Your task to perform on an android device: turn on notifications settings in the gmail app Image 0: 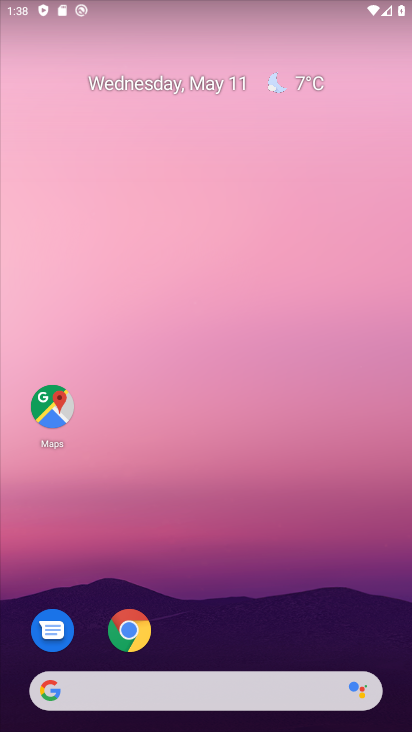
Step 0: drag from (366, 633) to (334, 25)
Your task to perform on an android device: turn on notifications settings in the gmail app Image 1: 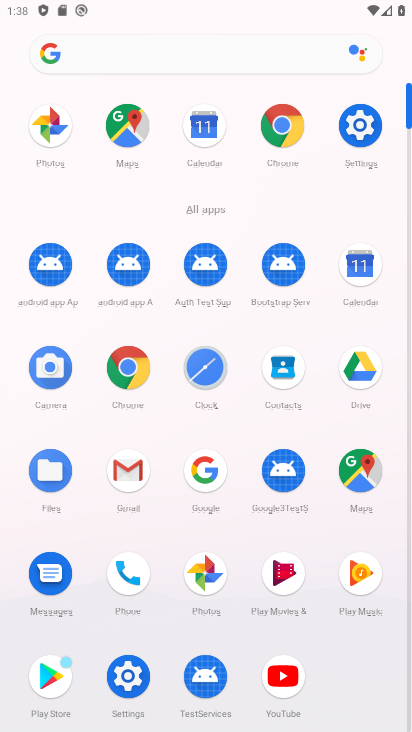
Step 1: click (132, 472)
Your task to perform on an android device: turn on notifications settings in the gmail app Image 2: 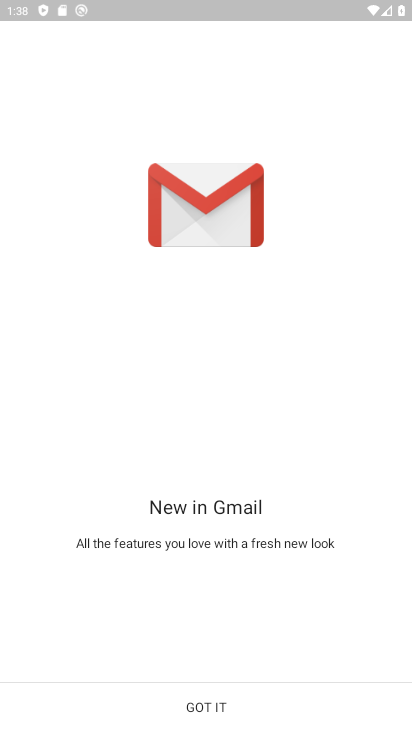
Step 2: click (200, 693)
Your task to perform on an android device: turn on notifications settings in the gmail app Image 3: 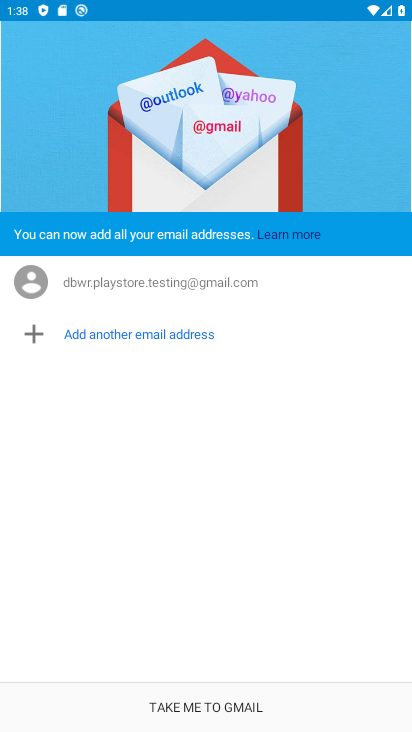
Step 3: click (200, 693)
Your task to perform on an android device: turn on notifications settings in the gmail app Image 4: 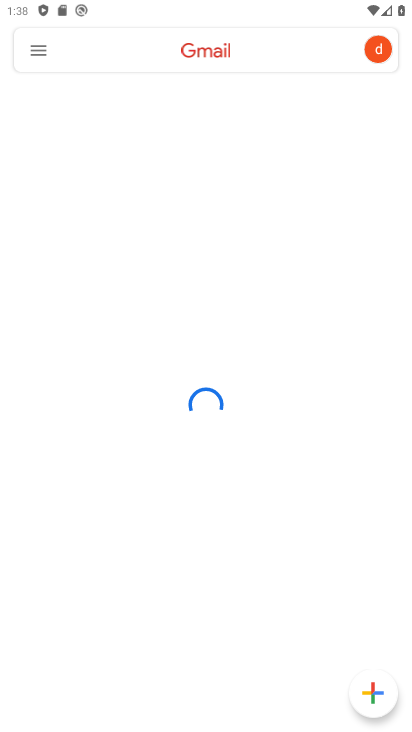
Step 4: click (29, 46)
Your task to perform on an android device: turn on notifications settings in the gmail app Image 5: 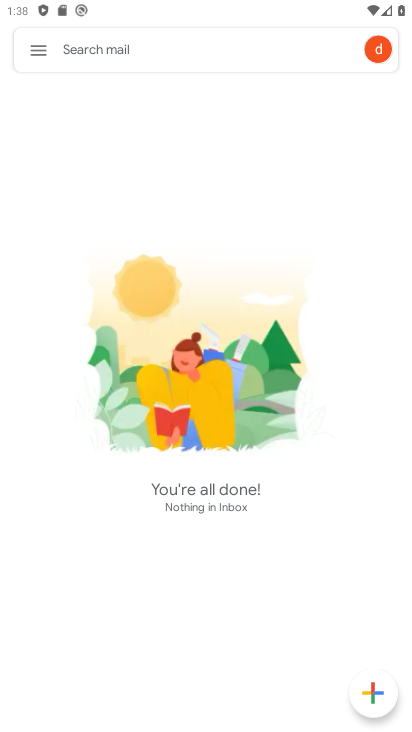
Step 5: click (44, 37)
Your task to perform on an android device: turn on notifications settings in the gmail app Image 6: 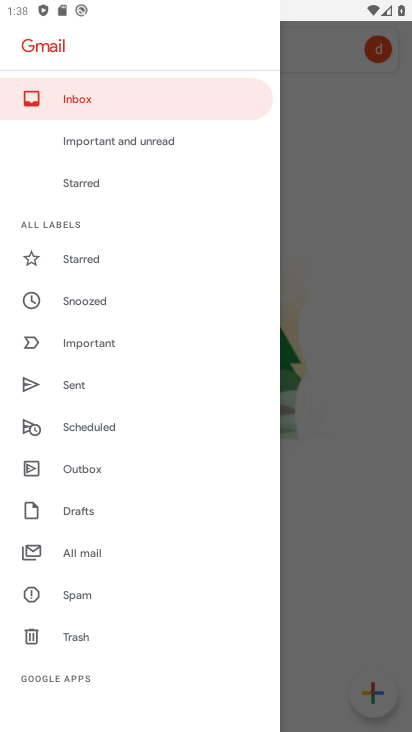
Step 6: drag from (103, 668) to (163, 141)
Your task to perform on an android device: turn on notifications settings in the gmail app Image 7: 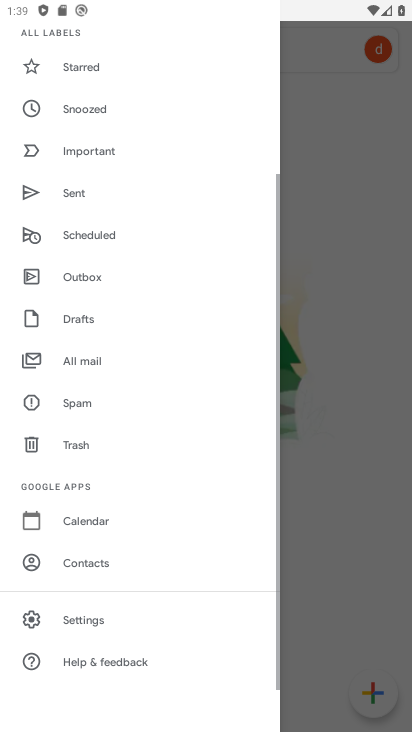
Step 7: click (104, 630)
Your task to perform on an android device: turn on notifications settings in the gmail app Image 8: 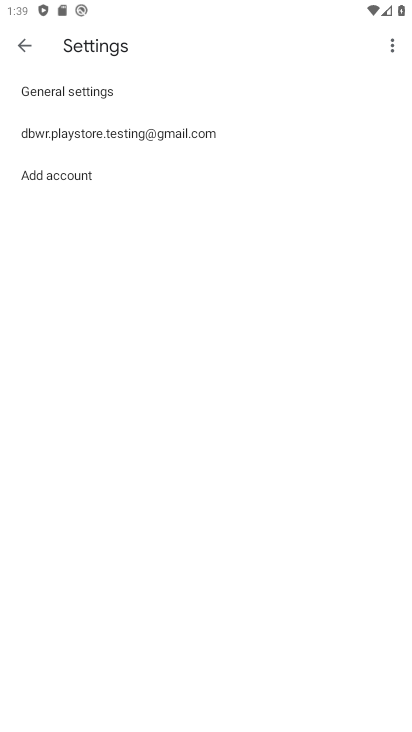
Step 8: click (149, 119)
Your task to perform on an android device: turn on notifications settings in the gmail app Image 9: 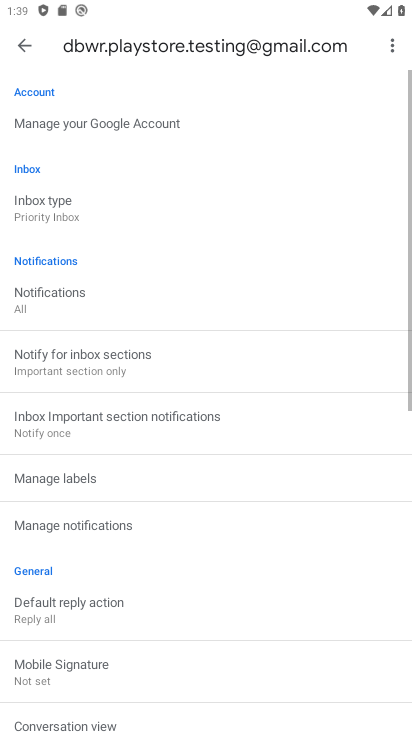
Step 9: click (145, 310)
Your task to perform on an android device: turn on notifications settings in the gmail app Image 10: 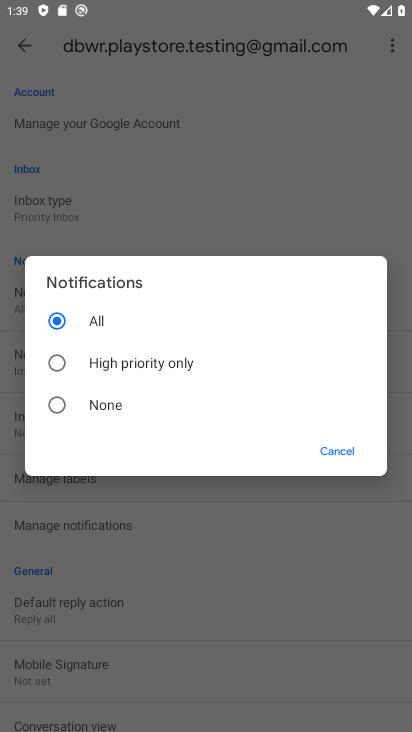
Step 10: task complete